Your task to perform on an android device: empty trash in google photos Image 0: 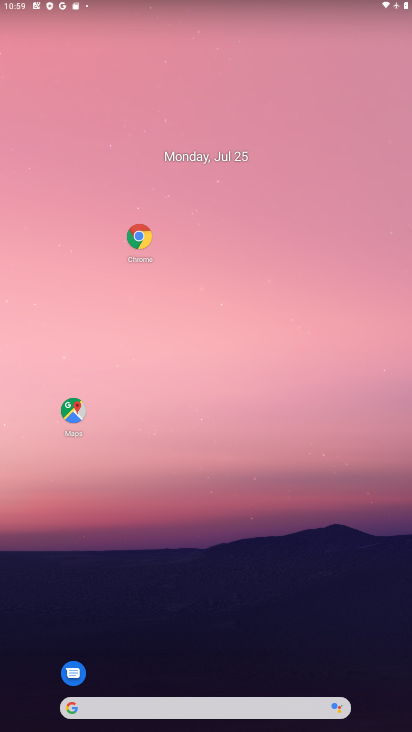
Step 0: drag from (255, 683) to (154, 5)
Your task to perform on an android device: empty trash in google photos Image 1: 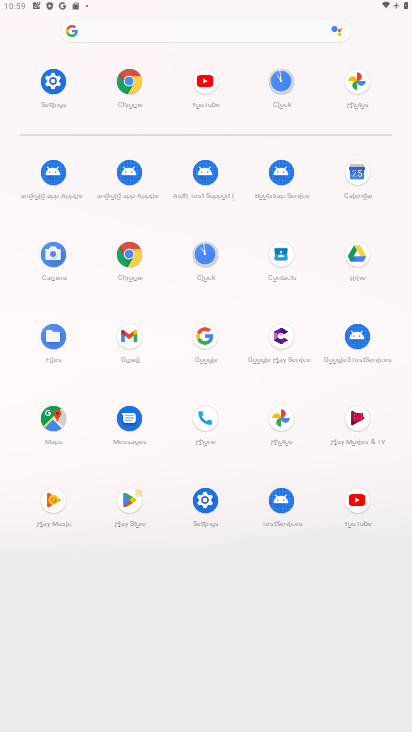
Step 1: click (345, 96)
Your task to perform on an android device: empty trash in google photos Image 2: 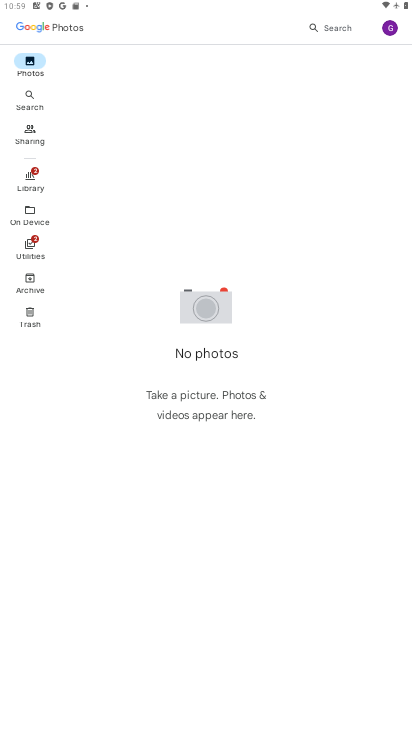
Step 2: click (21, 309)
Your task to perform on an android device: empty trash in google photos Image 3: 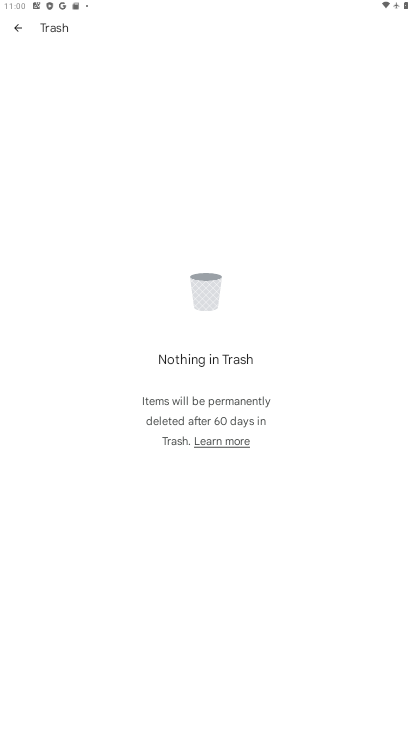
Step 3: task complete